Your task to perform on an android device: Go to Google maps Image 0: 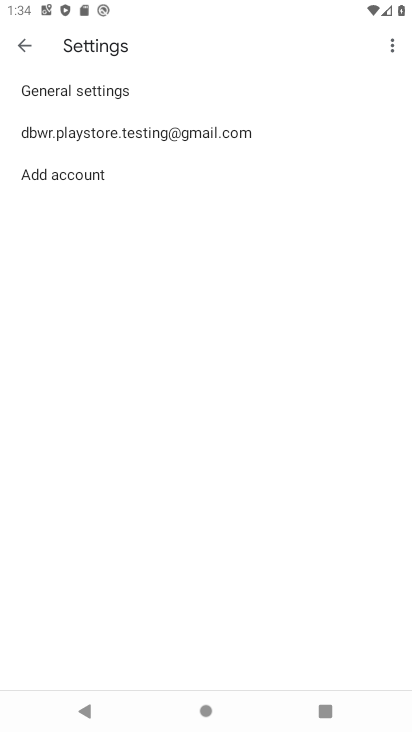
Step 0: press home button
Your task to perform on an android device: Go to Google maps Image 1: 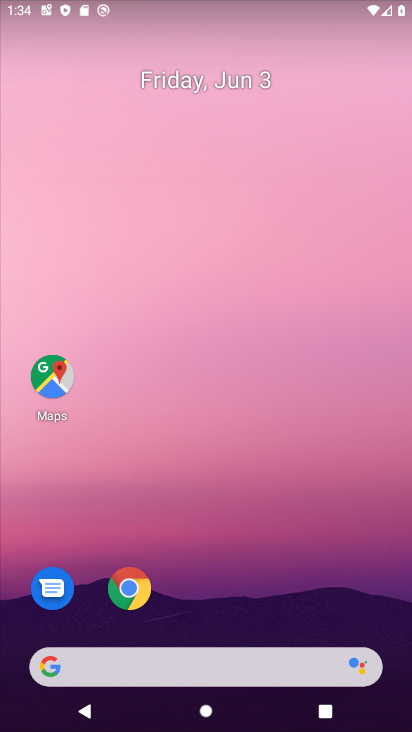
Step 1: click (34, 412)
Your task to perform on an android device: Go to Google maps Image 2: 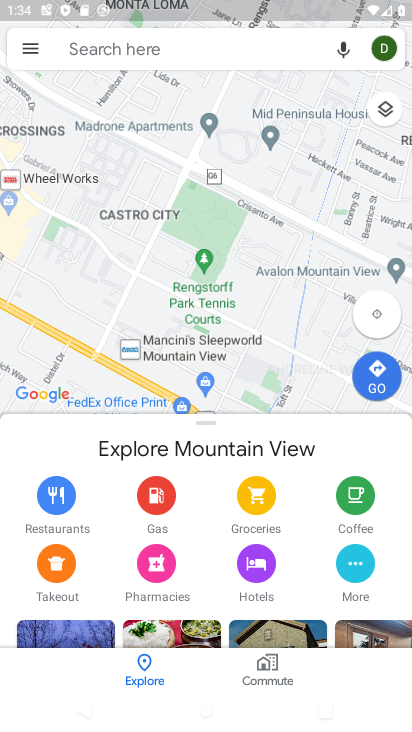
Step 2: task complete